Your task to perform on an android device: Open the web browser Image 0: 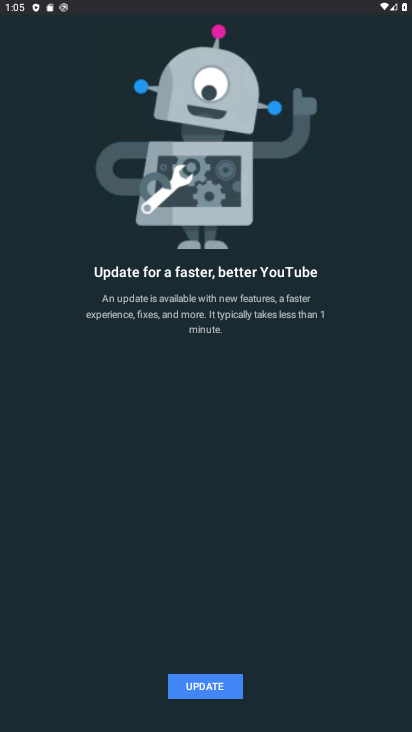
Step 0: press home button
Your task to perform on an android device: Open the web browser Image 1: 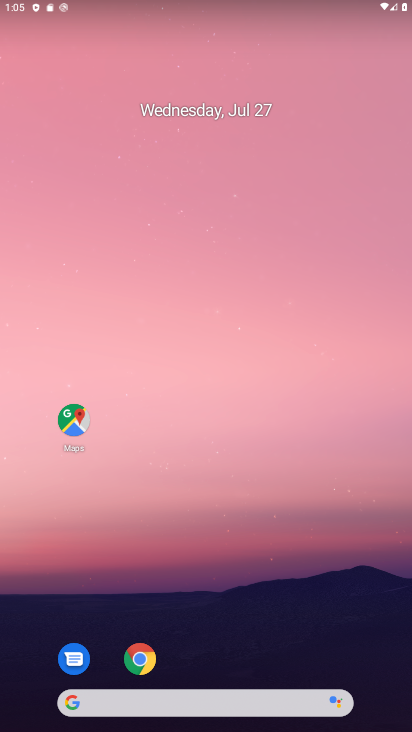
Step 1: drag from (315, 644) to (241, 92)
Your task to perform on an android device: Open the web browser Image 2: 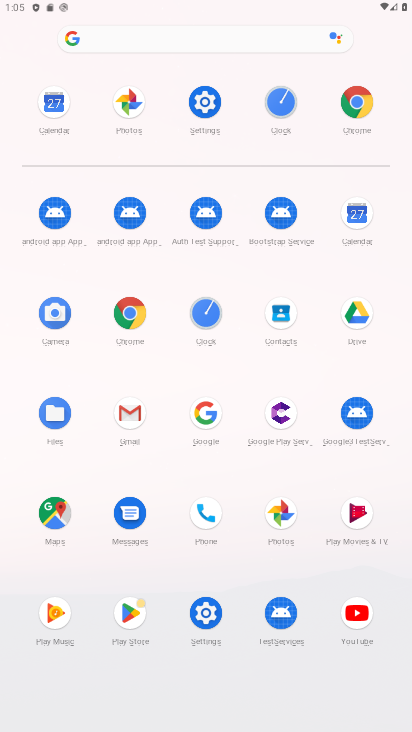
Step 2: click (358, 93)
Your task to perform on an android device: Open the web browser Image 3: 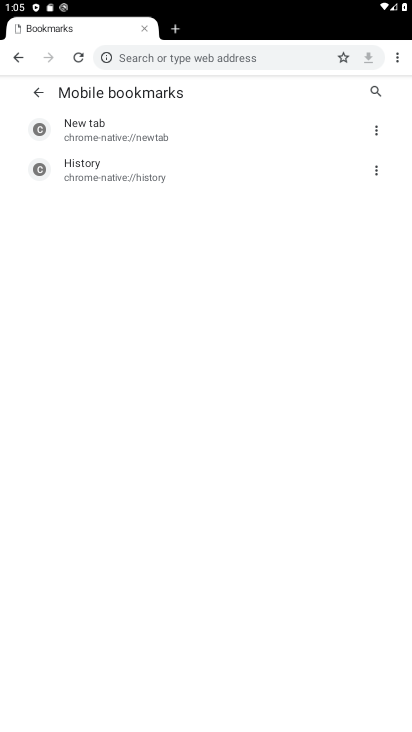
Step 3: task complete